Your task to perform on an android device: toggle sleep mode Image 0: 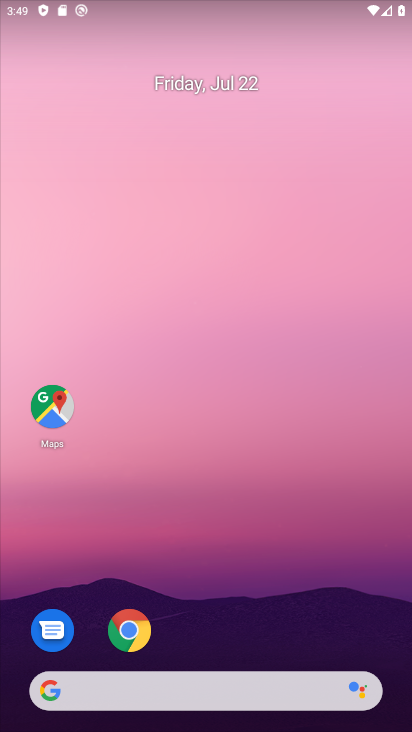
Step 0: drag from (312, 687) to (266, 5)
Your task to perform on an android device: toggle sleep mode Image 1: 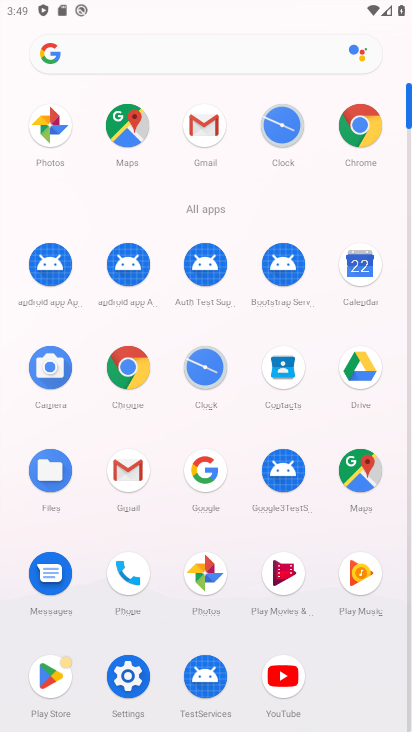
Step 1: click (127, 668)
Your task to perform on an android device: toggle sleep mode Image 2: 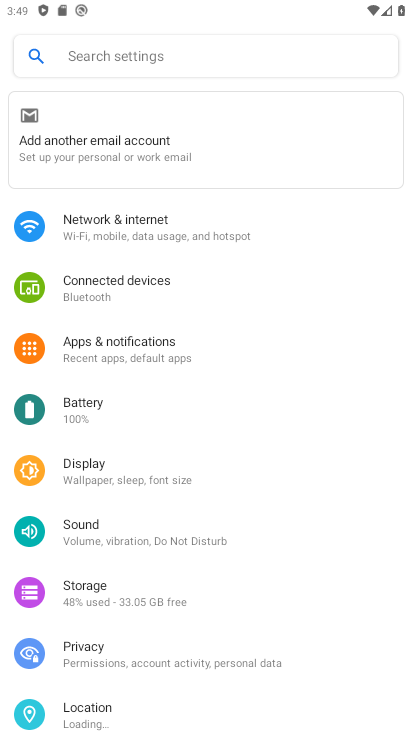
Step 2: click (122, 485)
Your task to perform on an android device: toggle sleep mode Image 3: 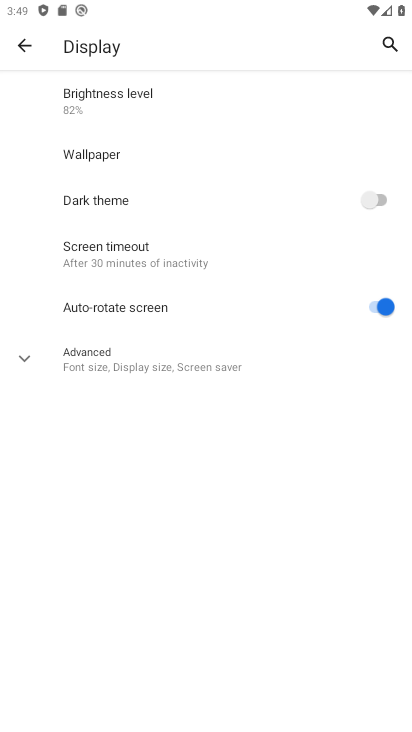
Step 3: task complete